Your task to perform on an android device: set the timer Image 0: 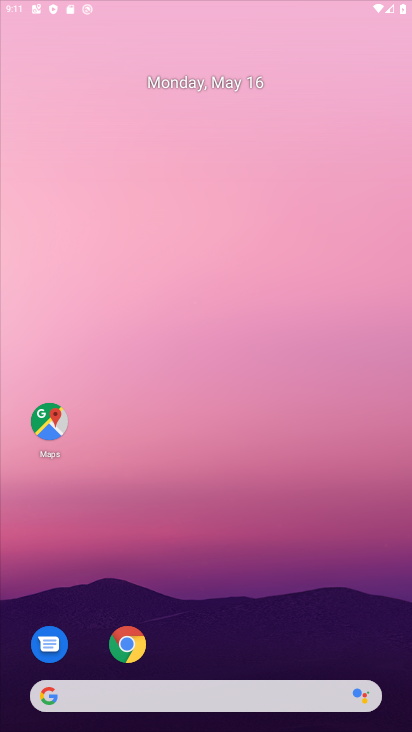
Step 0: drag from (174, 718) to (272, 108)
Your task to perform on an android device: set the timer Image 1: 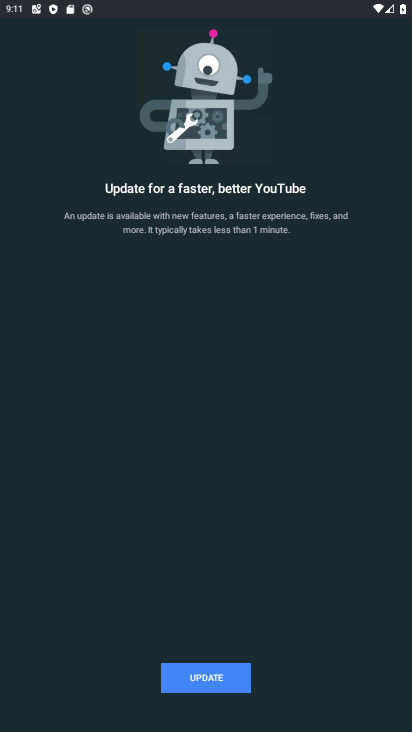
Step 1: press home button
Your task to perform on an android device: set the timer Image 2: 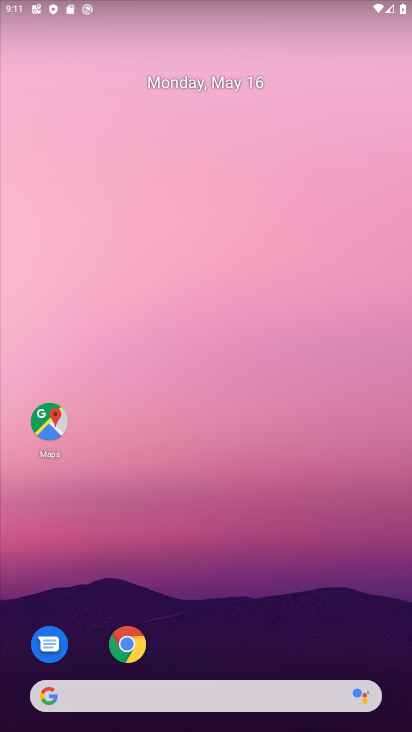
Step 2: drag from (203, 723) to (138, 221)
Your task to perform on an android device: set the timer Image 3: 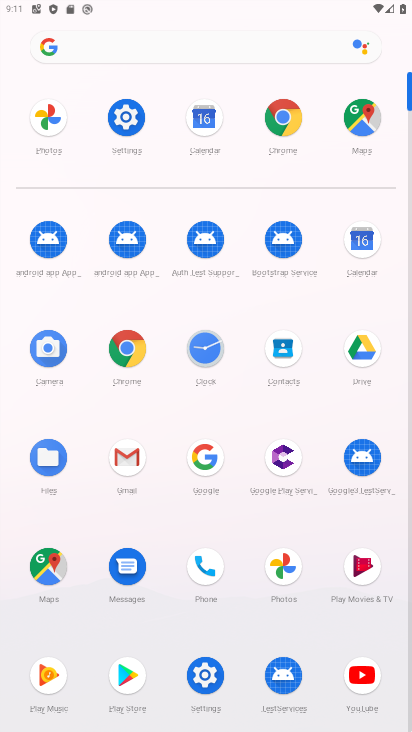
Step 3: click (198, 360)
Your task to perform on an android device: set the timer Image 4: 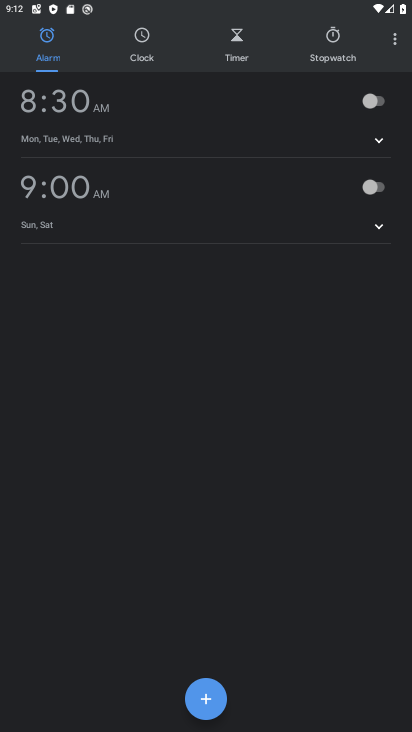
Step 4: click (241, 38)
Your task to perform on an android device: set the timer Image 5: 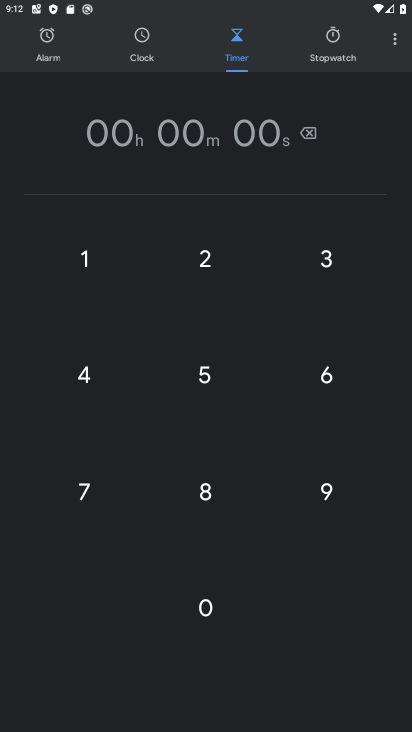
Step 5: click (181, 372)
Your task to perform on an android device: set the timer Image 6: 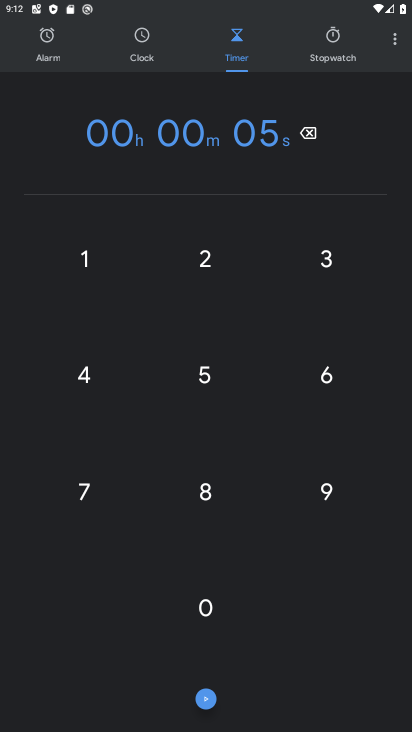
Step 6: click (298, 379)
Your task to perform on an android device: set the timer Image 7: 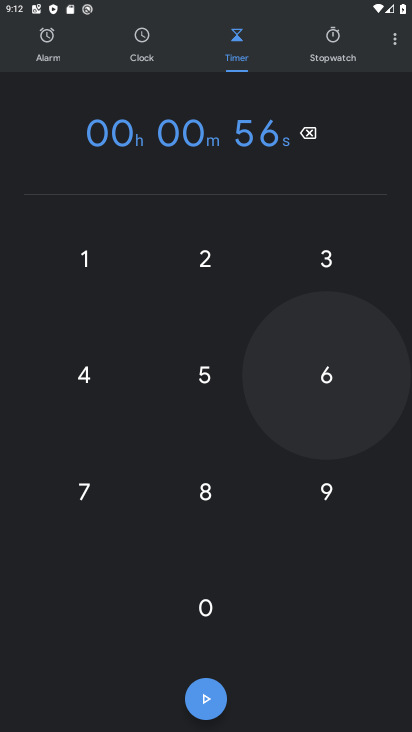
Step 7: click (323, 496)
Your task to perform on an android device: set the timer Image 8: 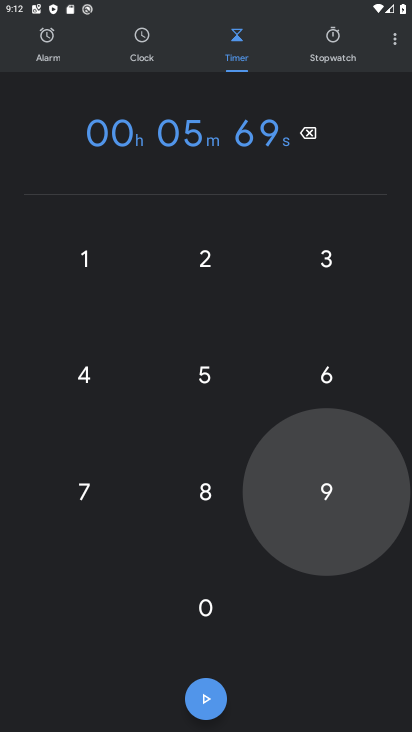
Step 8: click (186, 513)
Your task to perform on an android device: set the timer Image 9: 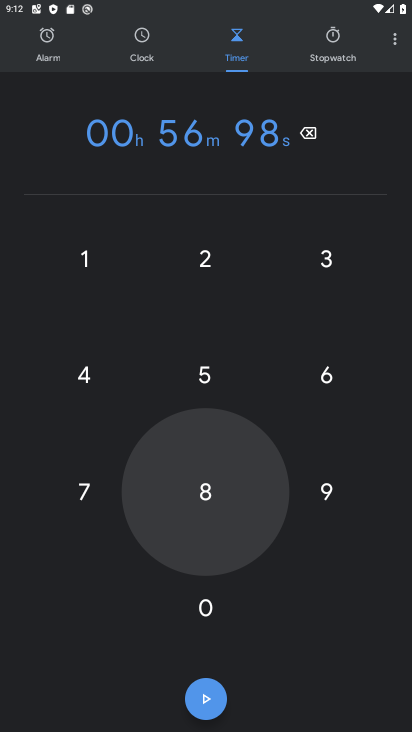
Step 9: click (64, 493)
Your task to perform on an android device: set the timer Image 10: 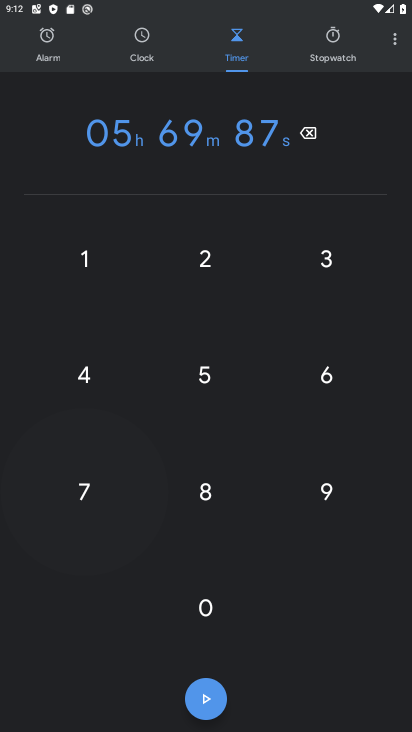
Step 10: click (94, 365)
Your task to perform on an android device: set the timer Image 11: 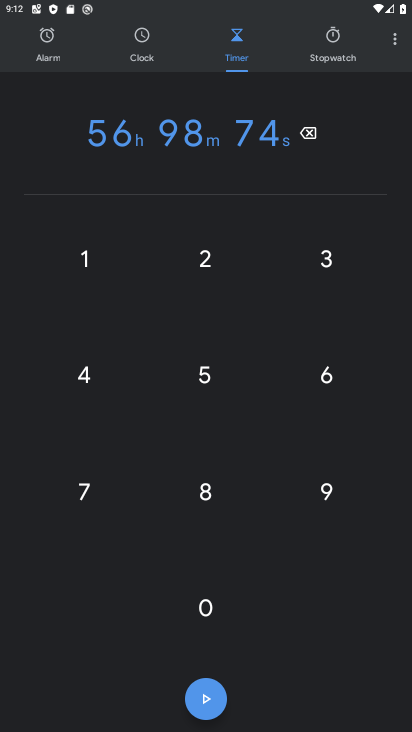
Step 11: task complete